Your task to perform on an android device: check storage Image 0: 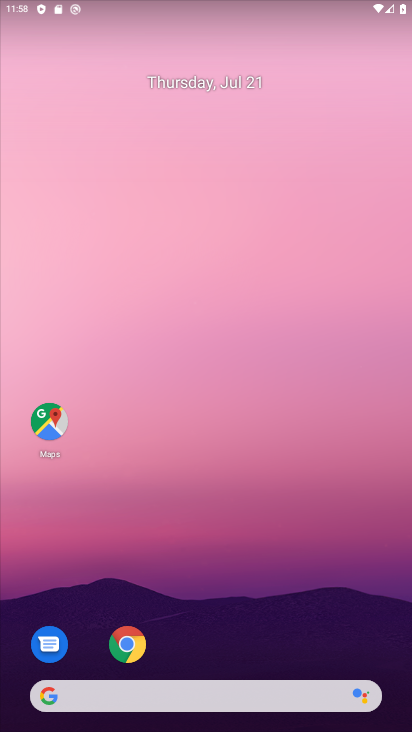
Step 0: drag from (202, 684) to (208, 105)
Your task to perform on an android device: check storage Image 1: 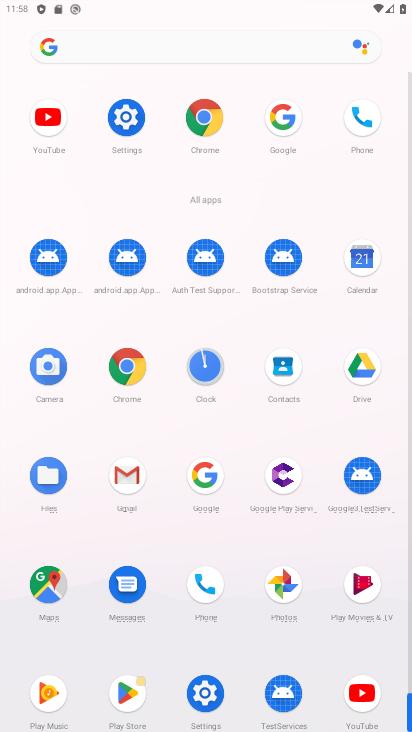
Step 1: click (128, 117)
Your task to perform on an android device: check storage Image 2: 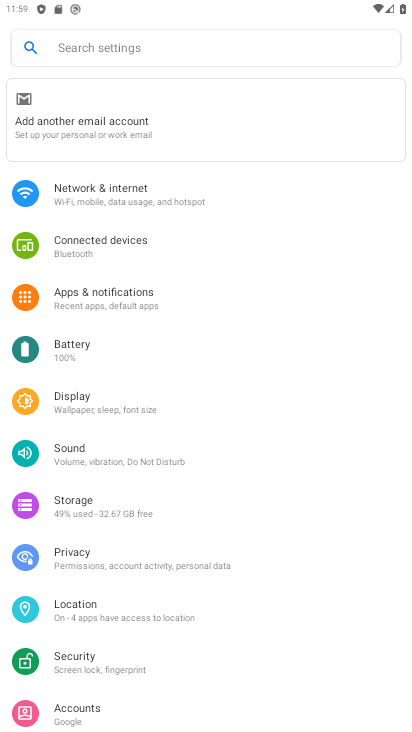
Step 2: click (153, 503)
Your task to perform on an android device: check storage Image 3: 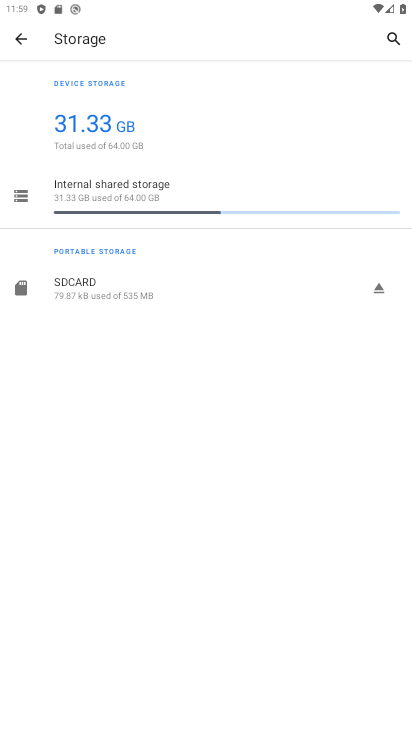
Step 3: click (115, 193)
Your task to perform on an android device: check storage Image 4: 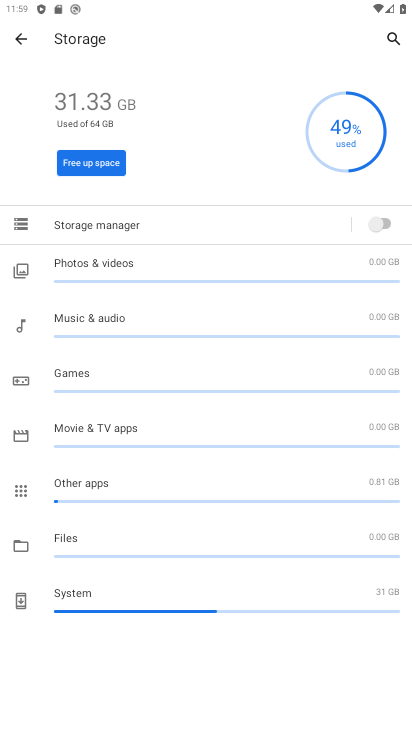
Step 4: task complete